Your task to perform on an android device: Go to Google maps Image 0: 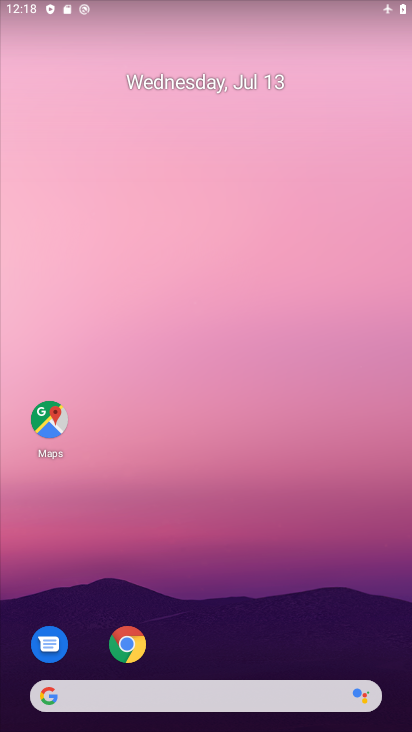
Step 0: drag from (309, 608) to (276, 141)
Your task to perform on an android device: Go to Google maps Image 1: 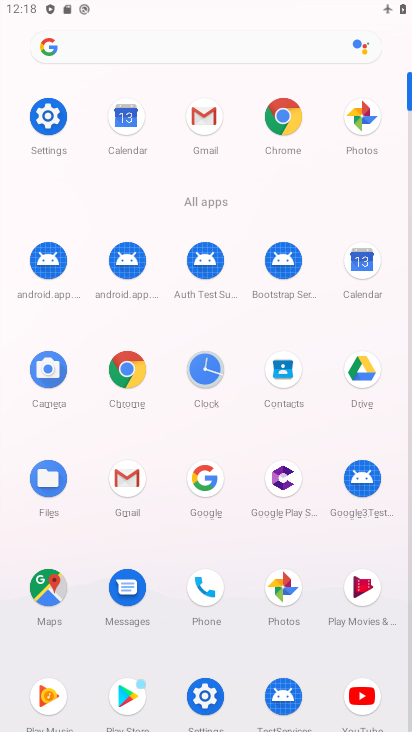
Step 1: click (50, 588)
Your task to perform on an android device: Go to Google maps Image 2: 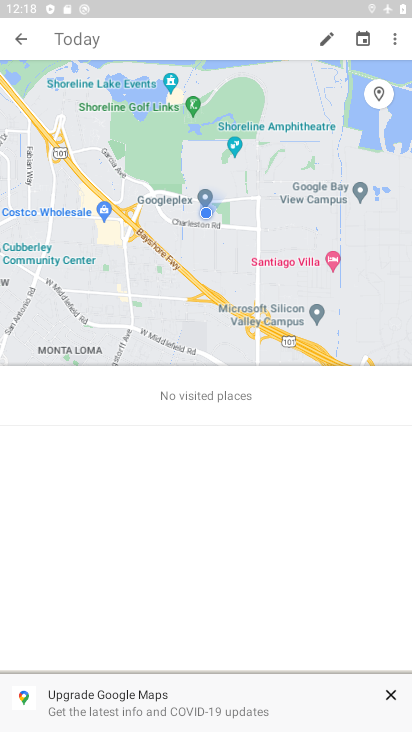
Step 2: task complete